Your task to perform on an android device: Open Maps and search for coffee Image 0: 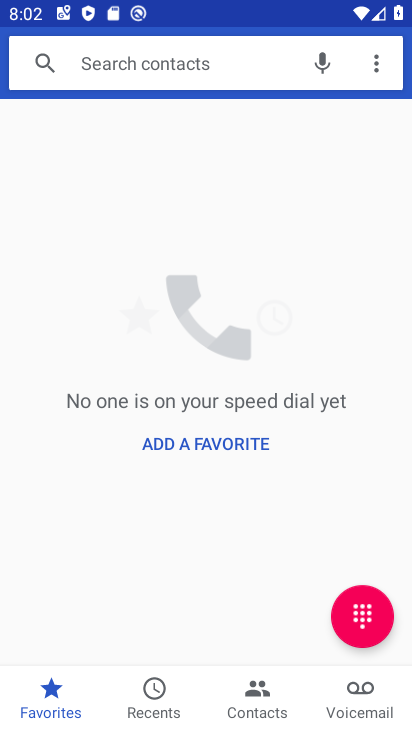
Step 0: press home button
Your task to perform on an android device: Open Maps and search for coffee Image 1: 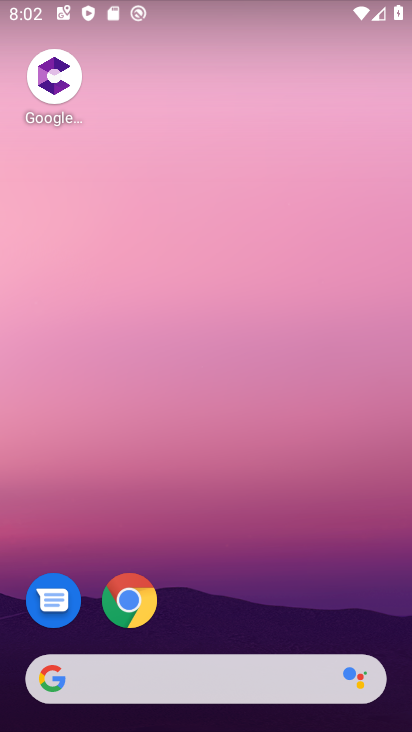
Step 1: drag from (236, 640) to (280, 42)
Your task to perform on an android device: Open Maps and search for coffee Image 2: 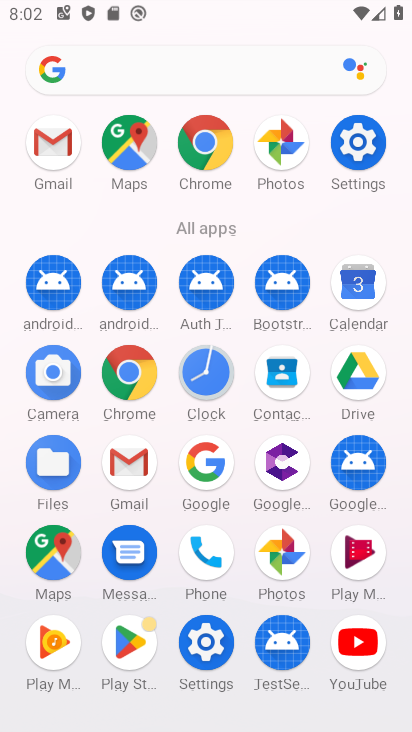
Step 2: click (36, 562)
Your task to perform on an android device: Open Maps and search for coffee Image 3: 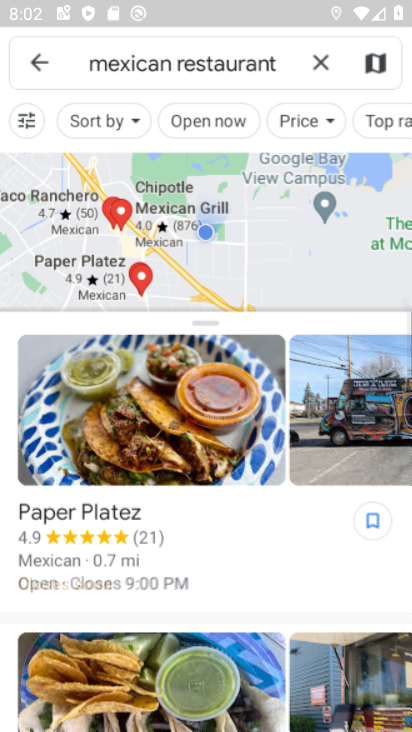
Step 3: click (201, 57)
Your task to perform on an android device: Open Maps and search for coffee Image 4: 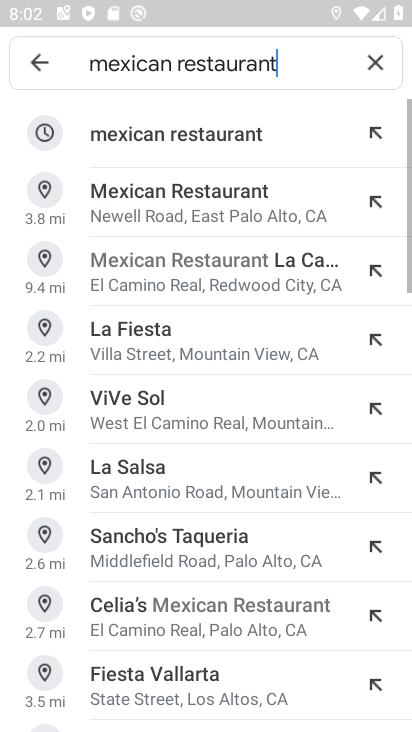
Step 4: click (372, 65)
Your task to perform on an android device: Open Maps and search for coffee Image 5: 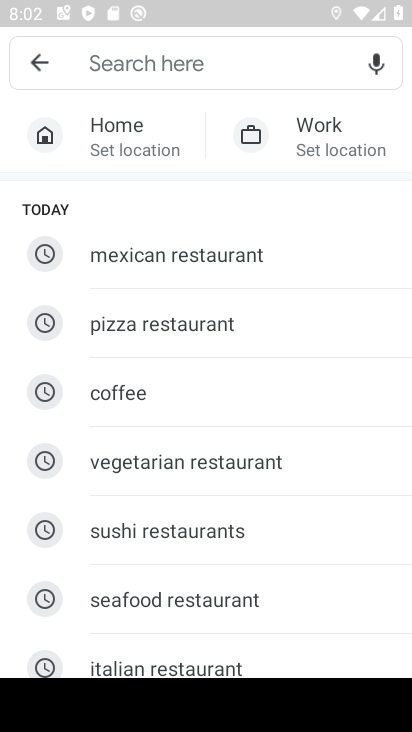
Step 5: type "coffee"
Your task to perform on an android device: Open Maps and search for coffee Image 6: 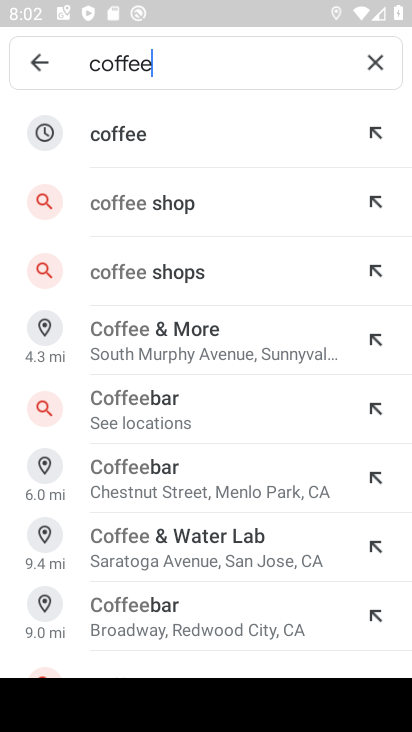
Step 6: click (210, 147)
Your task to perform on an android device: Open Maps and search for coffee Image 7: 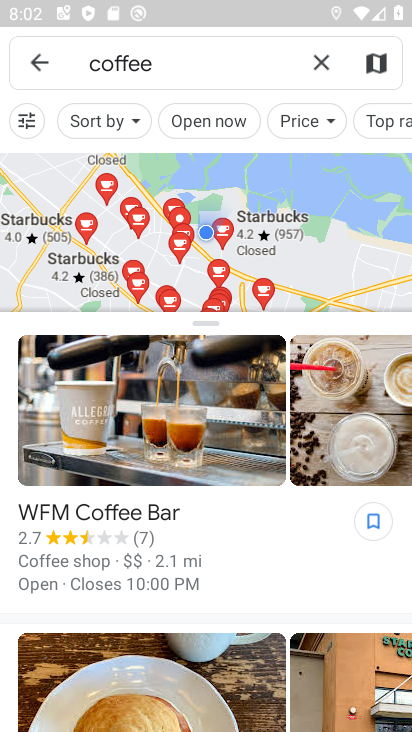
Step 7: task complete